Your task to perform on an android device: delete the emails in spam in the gmail app Image 0: 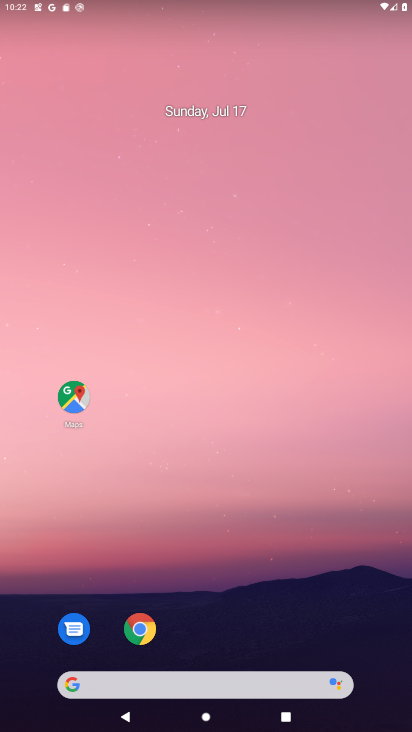
Step 0: drag from (222, 682) to (300, 289)
Your task to perform on an android device: delete the emails in spam in the gmail app Image 1: 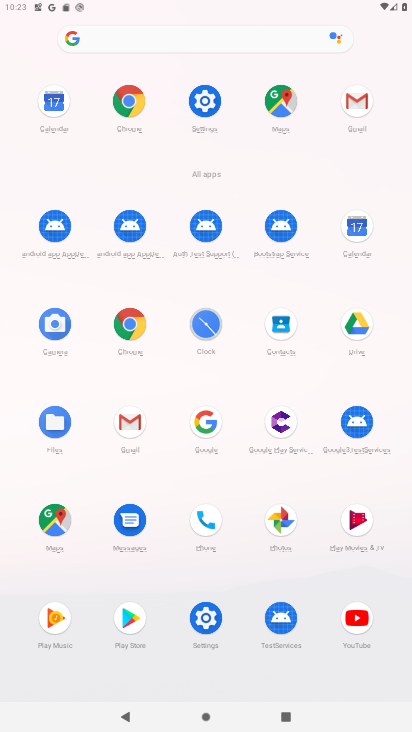
Step 1: click (131, 418)
Your task to perform on an android device: delete the emails in spam in the gmail app Image 2: 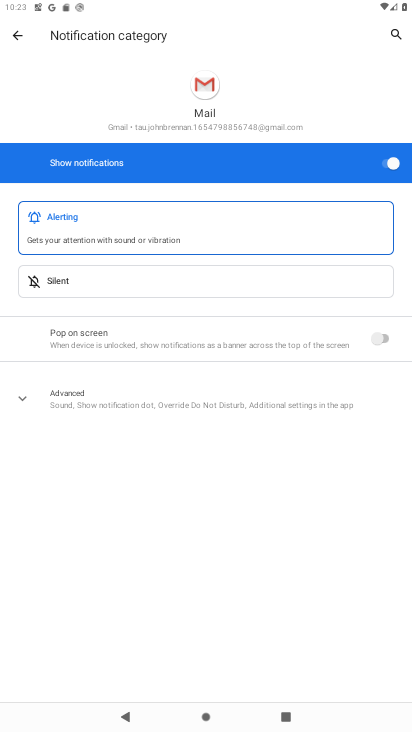
Step 2: press back button
Your task to perform on an android device: delete the emails in spam in the gmail app Image 3: 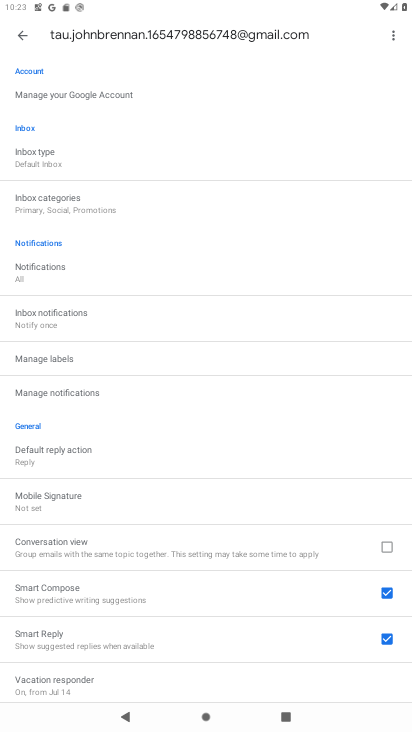
Step 3: press back button
Your task to perform on an android device: delete the emails in spam in the gmail app Image 4: 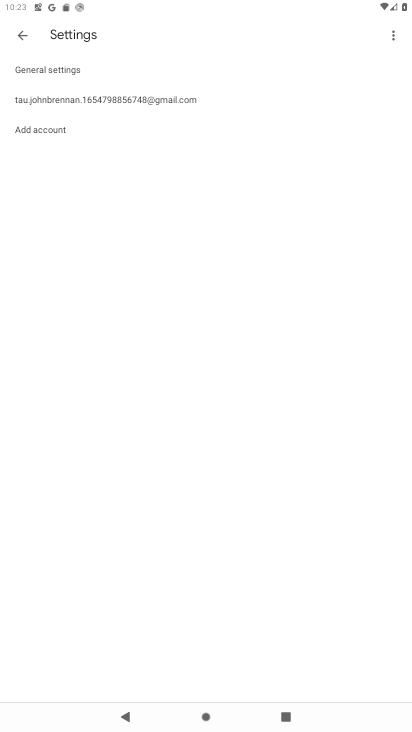
Step 4: press back button
Your task to perform on an android device: delete the emails in spam in the gmail app Image 5: 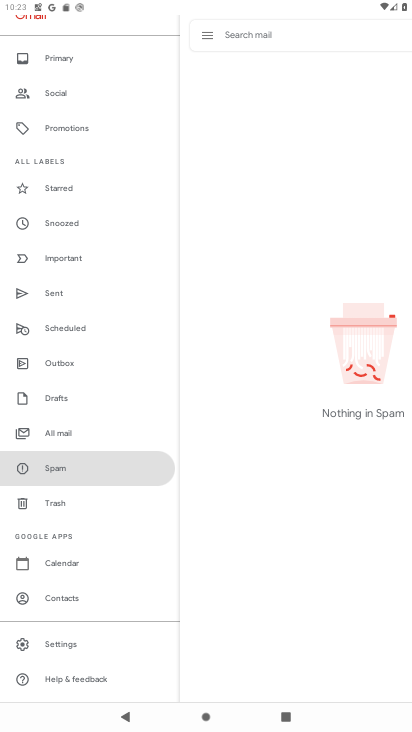
Step 5: click (73, 465)
Your task to perform on an android device: delete the emails in spam in the gmail app Image 6: 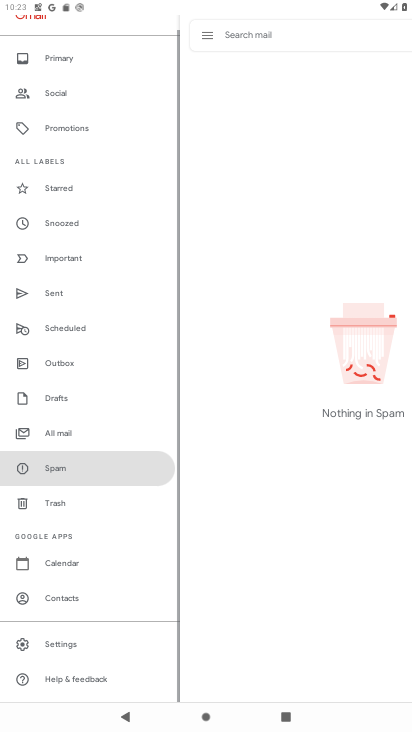
Step 6: task complete